Your task to perform on an android device: delete a single message in the gmail app Image 0: 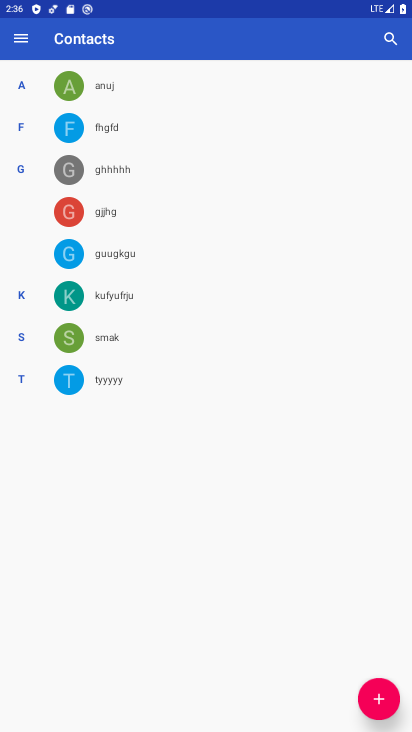
Step 0: press home button
Your task to perform on an android device: delete a single message in the gmail app Image 1: 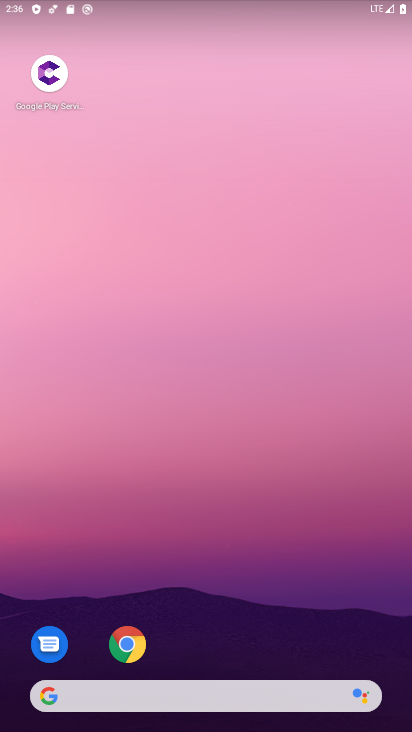
Step 1: drag from (215, 687) to (202, 227)
Your task to perform on an android device: delete a single message in the gmail app Image 2: 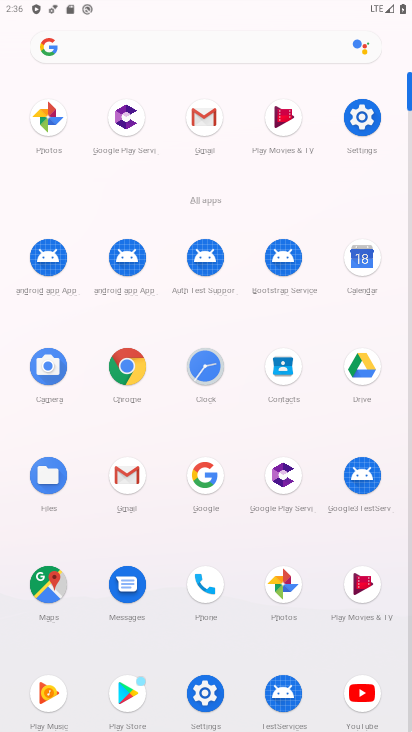
Step 2: click (210, 130)
Your task to perform on an android device: delete a single message in the gmail app Image 3: 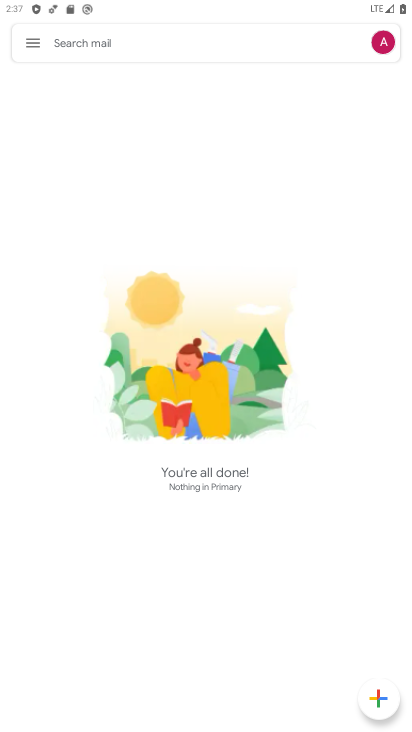
Step 3: click (43, 53)
Your task to perform on an android device: delete a single message in the gmail app Image 4: 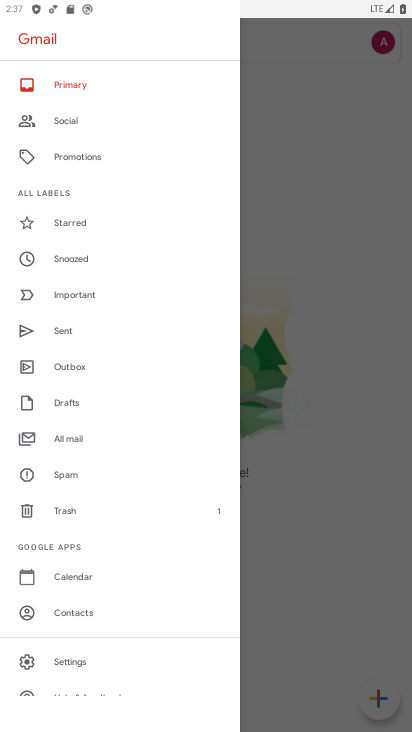
Step 4: click (85, 435)
Your task to perform on an android device: delete a single message in the gmail app Image 5: 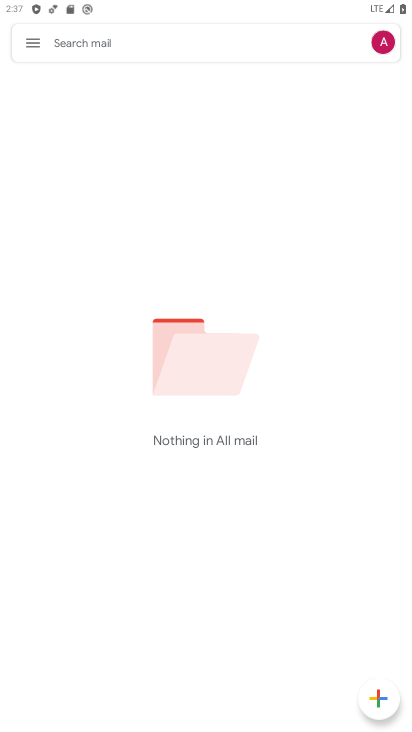
Step 5: task complete